Your task to perform on an android device: uninstall "Google Sheets" Image 0: 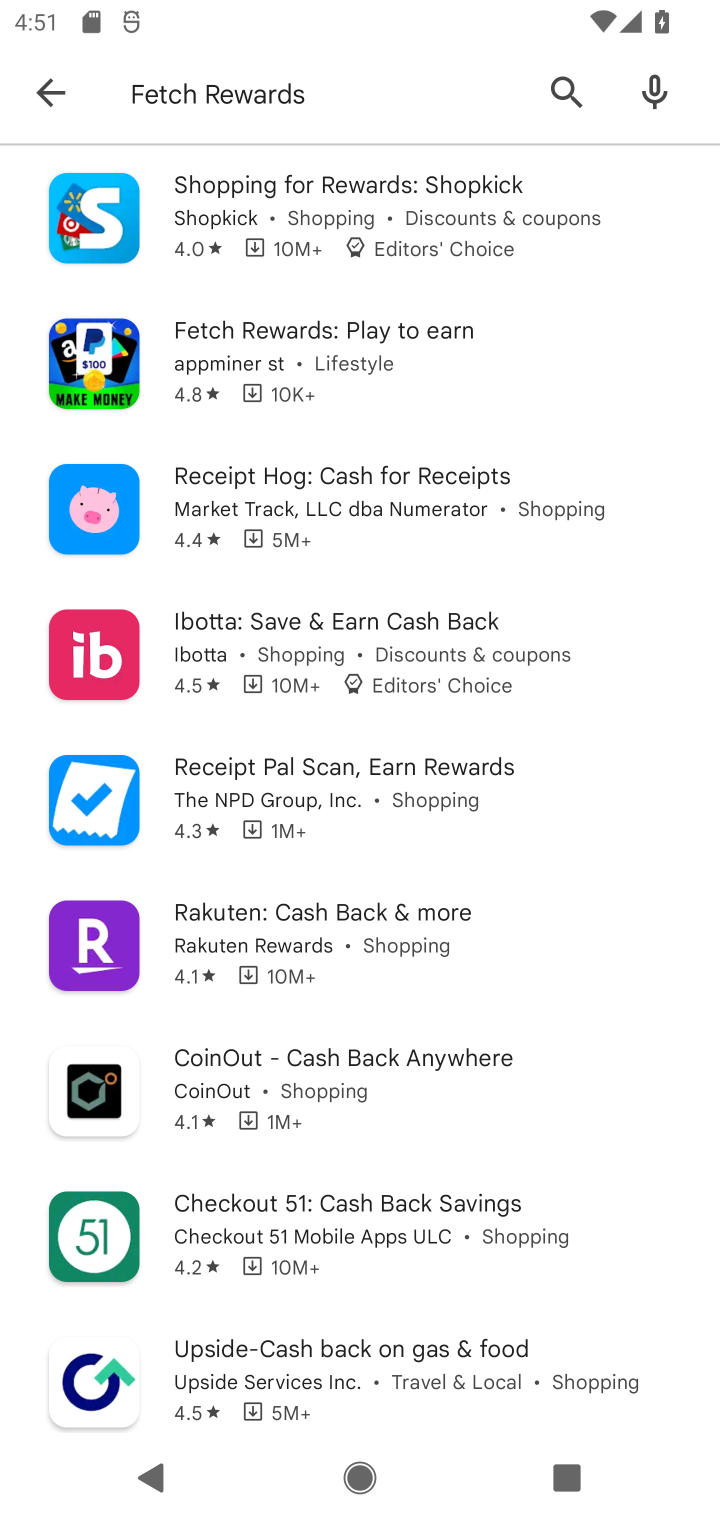
Step 0: press home button
Your task to perform on an android device: uninstall "Google Sheets" Image 1: 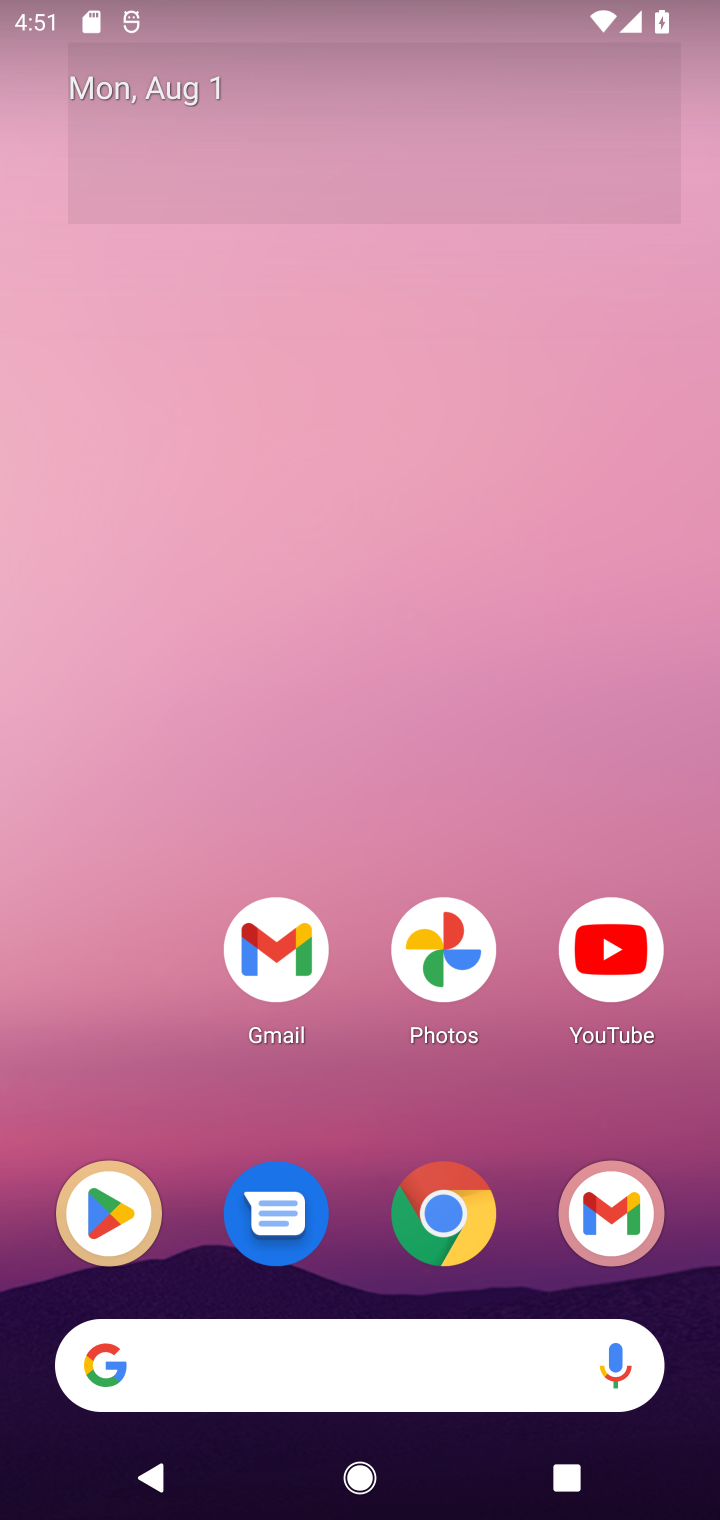
Step 1: drag from (549, 1030) to (544, 135)
Your task to perform on an android device: uninstall "Google Sheets" Image 2: 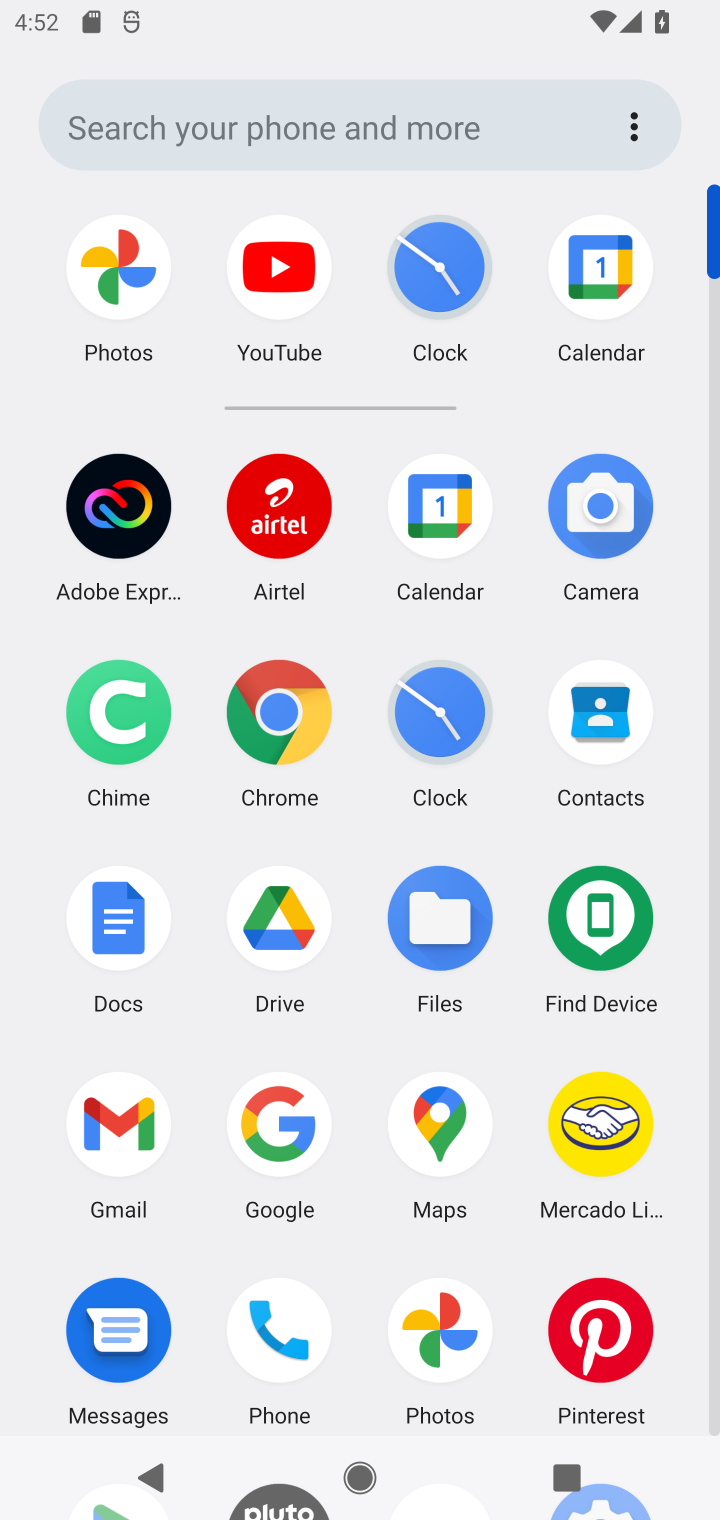
Step 2: drag from (512, 1221) to (537, 330)
Your task to perform on an android device: uninstall "Google Sheets" Image 3: 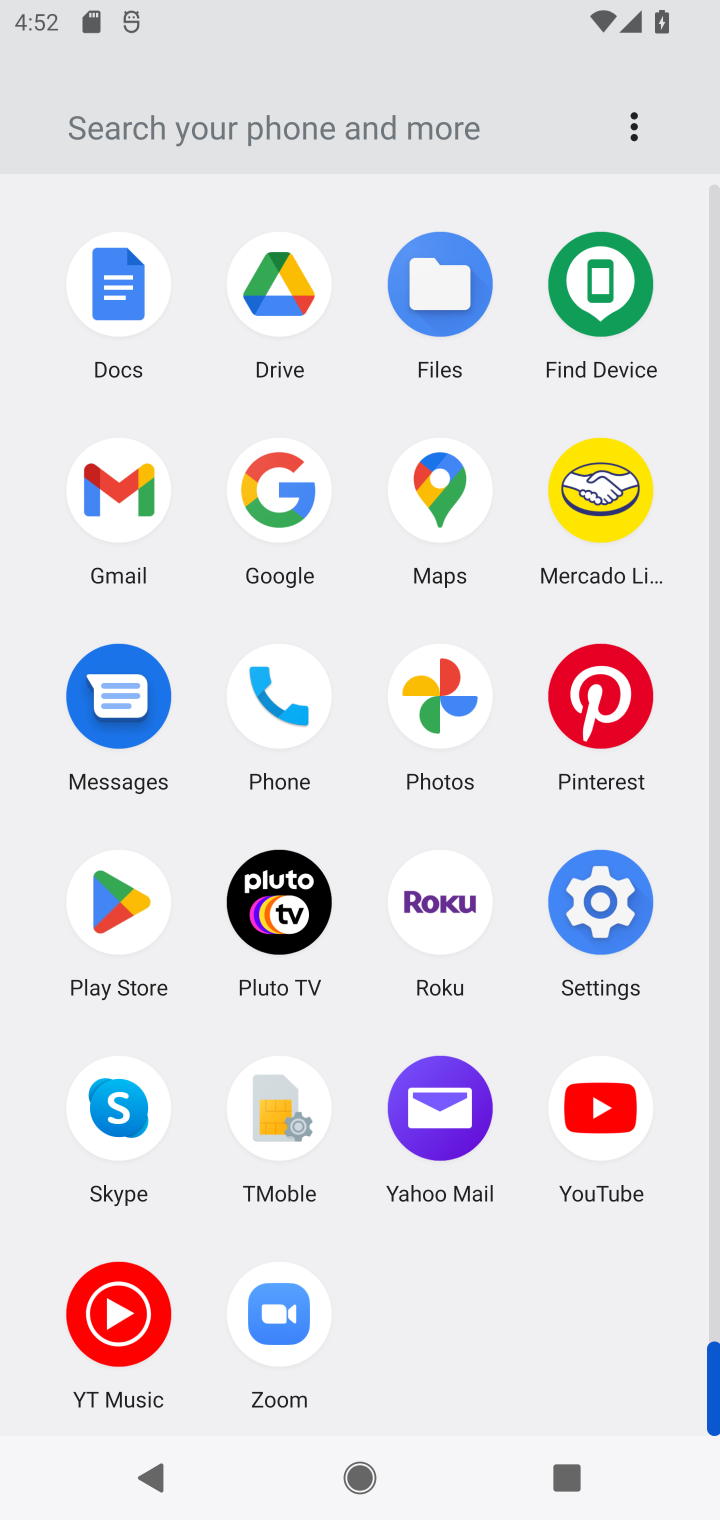
Step 3: click (89, 916)
Your task to perform on an android device: uninstall "Google Sheets" Image 4: 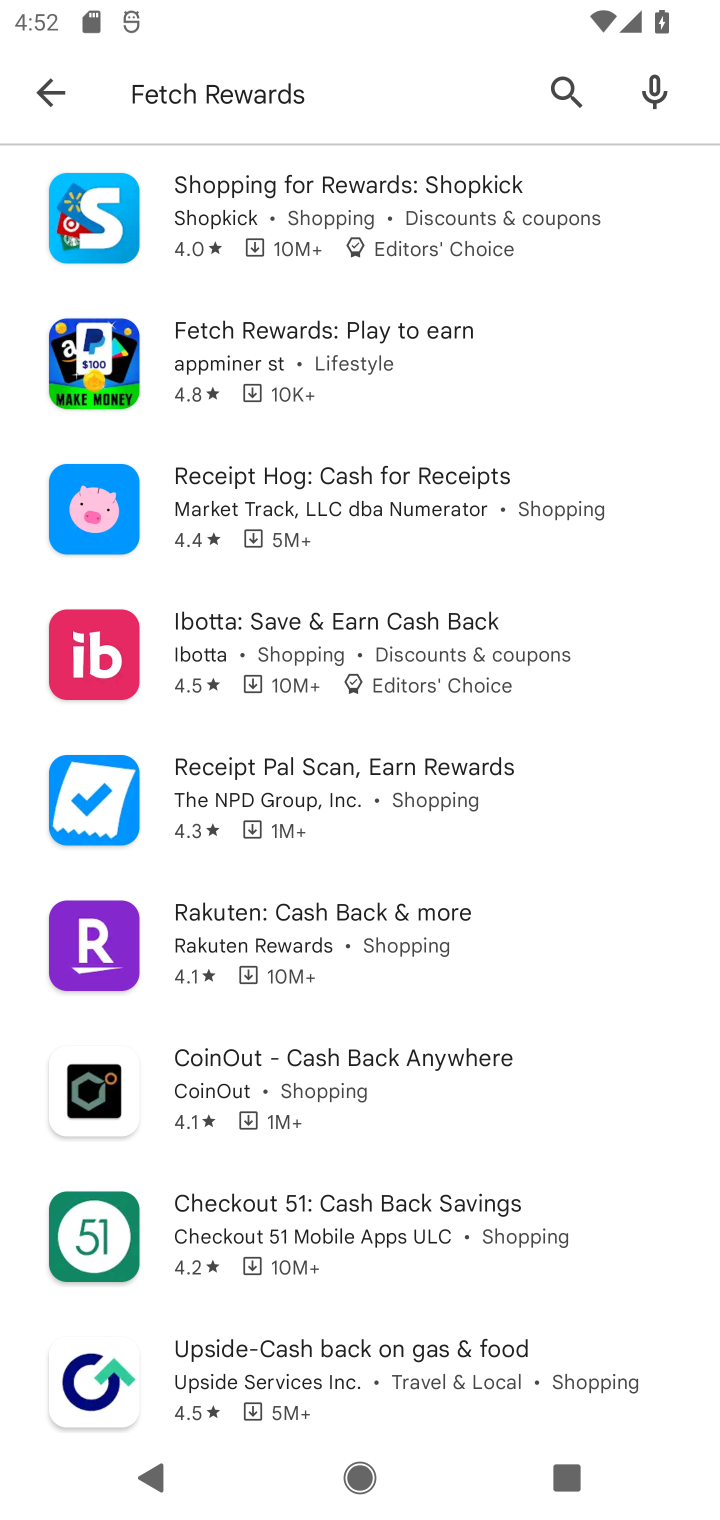
Step 4: click (351, 104)
Your task to perform on an android device: uninstall "Google Sheets" Image 5: 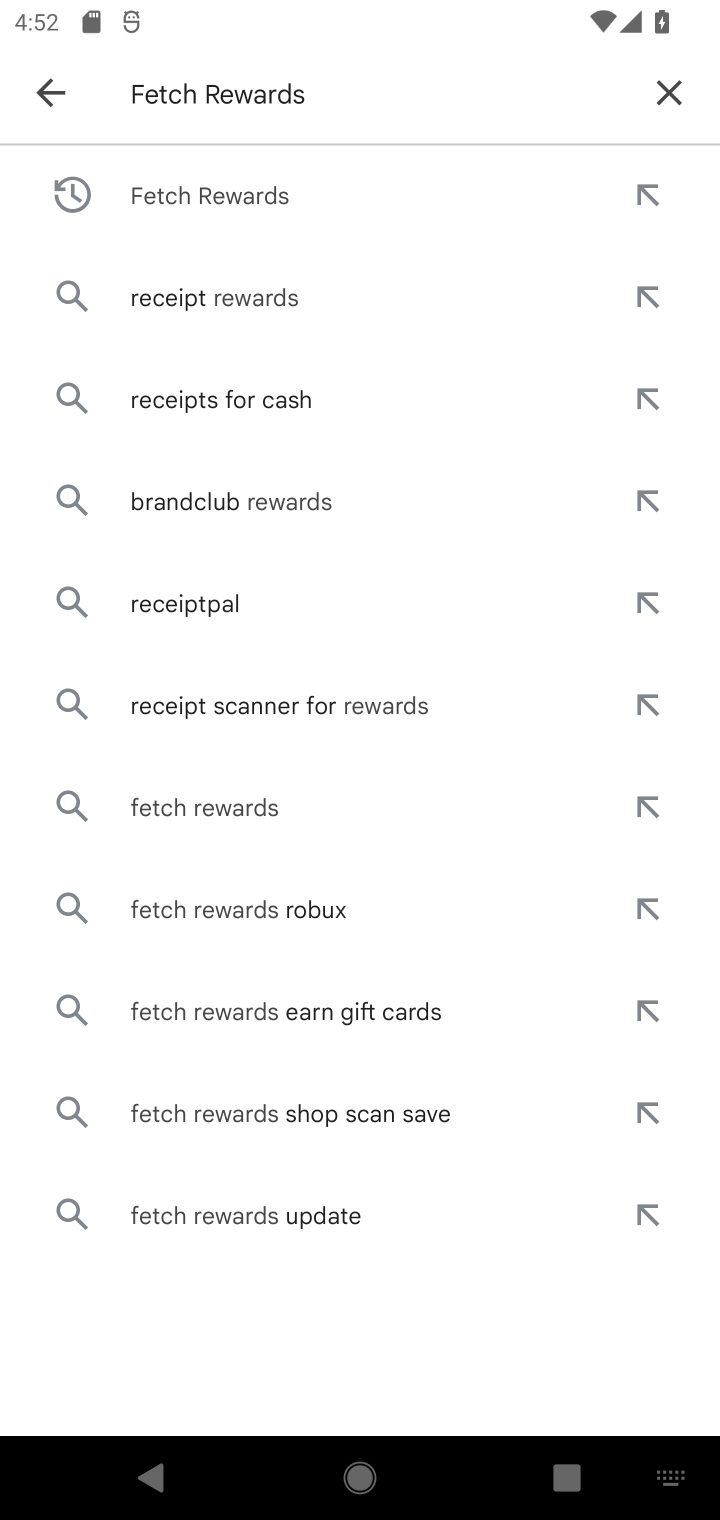
Step 5: click (669, 92)
Your task to perform on an android device: uninstall "Google Sheets" Image 6: 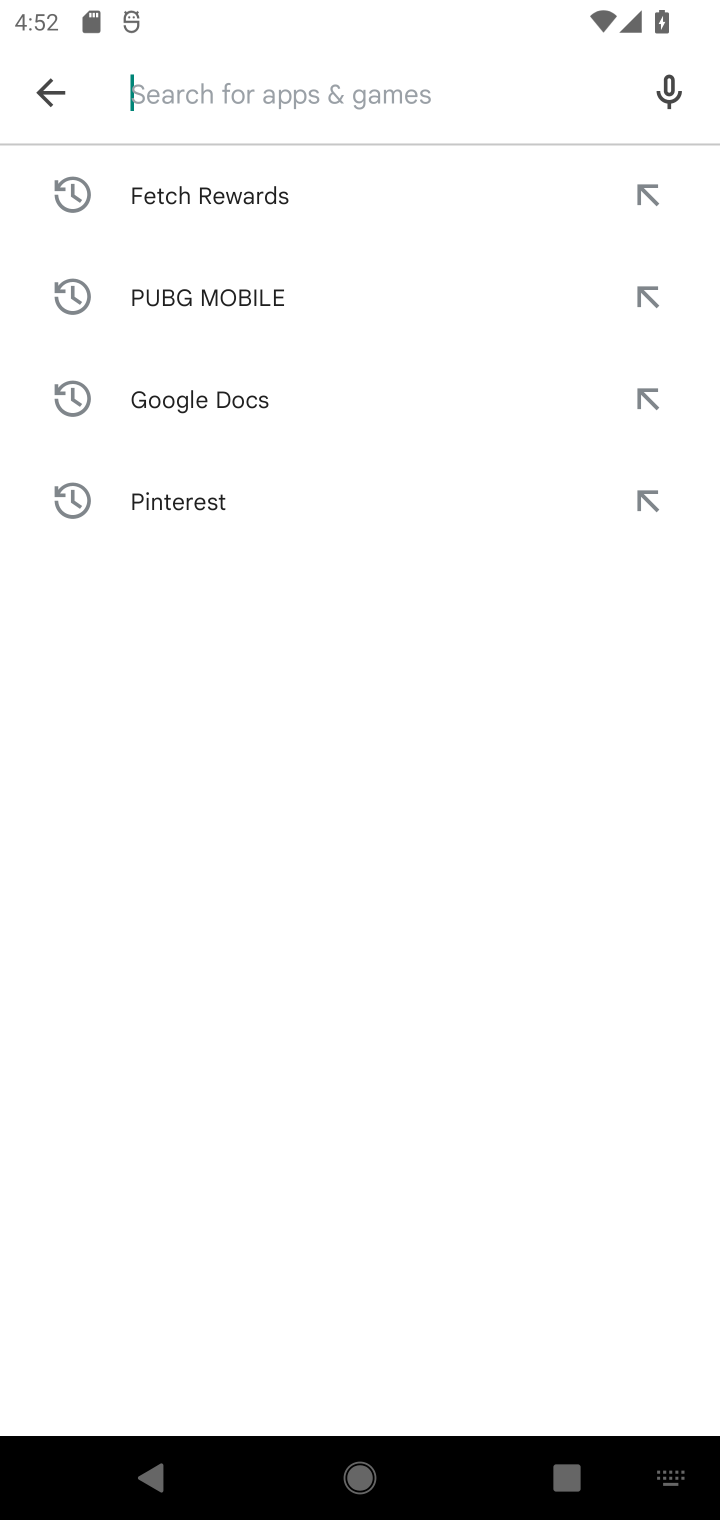
Step 6: type "Google Sheets"
Your task to perform on an android device: uninstall "Google Sheets" Image 7: 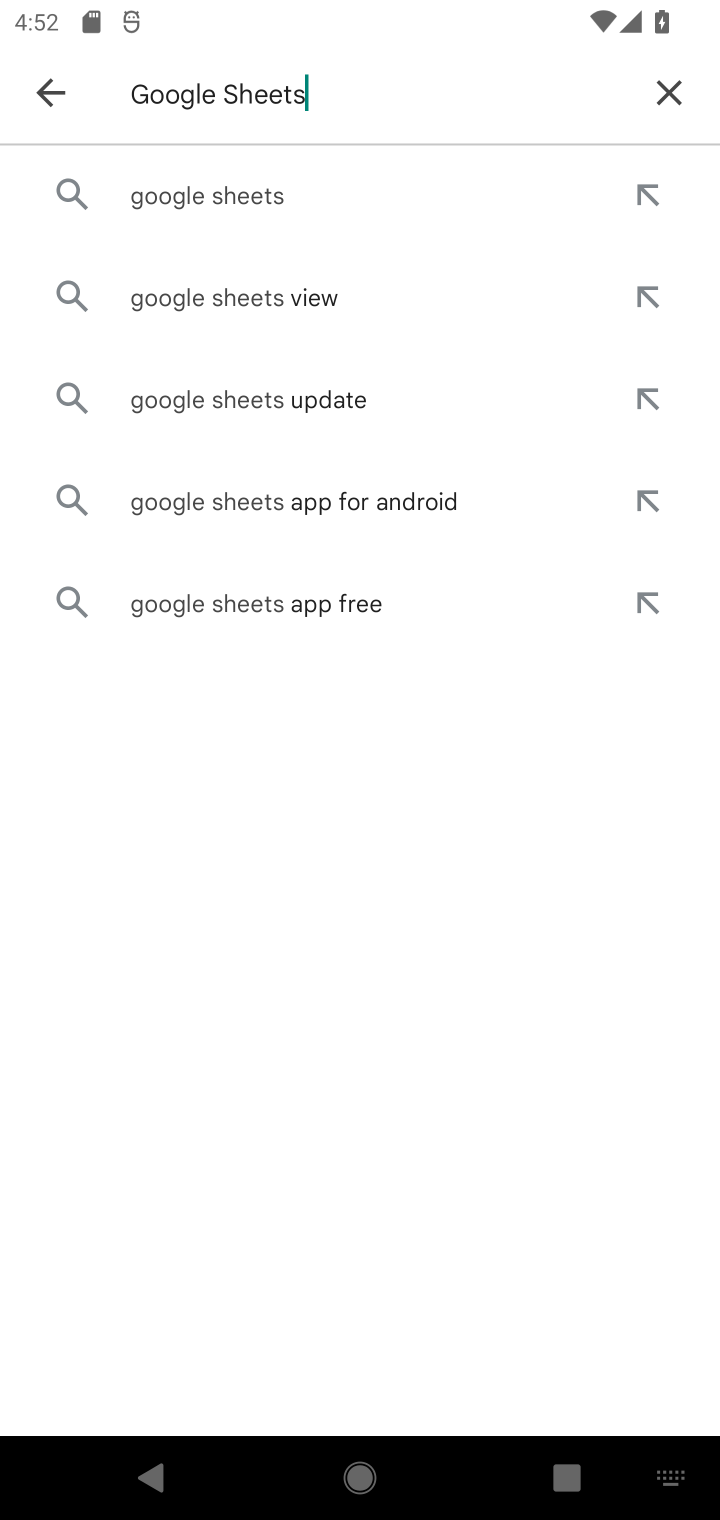
Step 7: press enter
Your task to perform on an android device: uninstall "Google Sheets" Image 8: 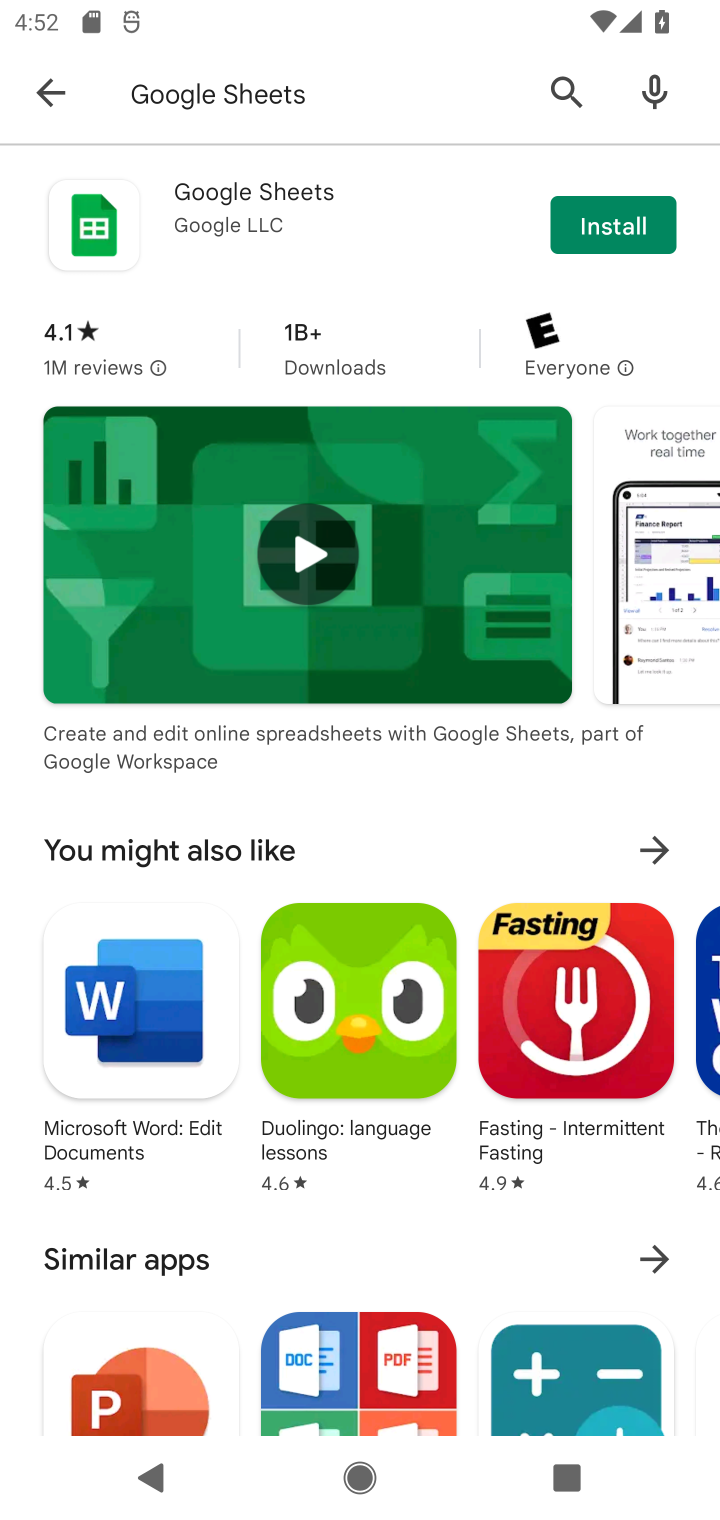
Step 8: task complete